Your task to perform on an android device: Open the phone app and click the voicemail tab. Image 0: 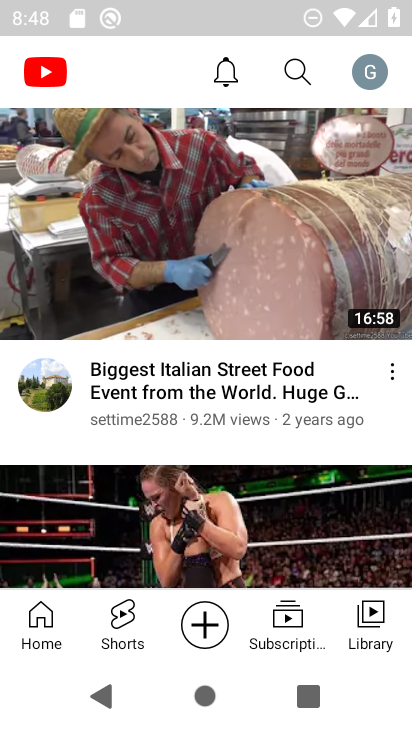
Step 0: press home button
Your task to perform on an android device: Open the phone app and click the voicemail tab. Image 1: 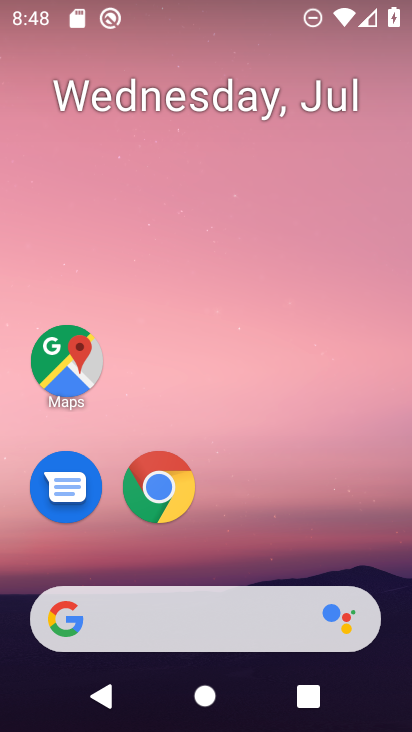
Step 1: drag from (341, 536) to (360, 94)
Your task to perform on an android device: Open the phone app and click the voicemail tab. Image 2: 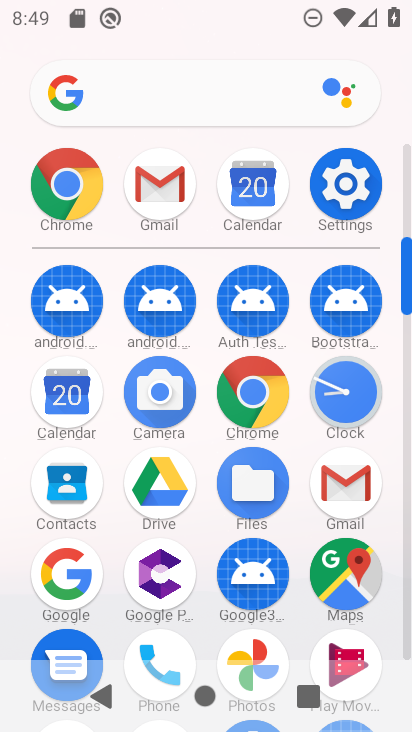
Step 2: drag from (401, 525) to (395, 259)
Your task to perform on an android device: Open the phone app and click the voicemail tab. Image 3: 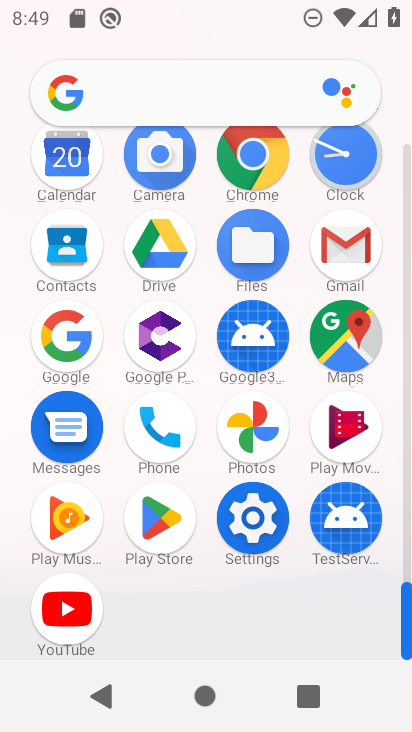
Step 3: click (164, 427)
Your task to perform on an android device: Open the phone app and click the voicemail tab. Image 4: 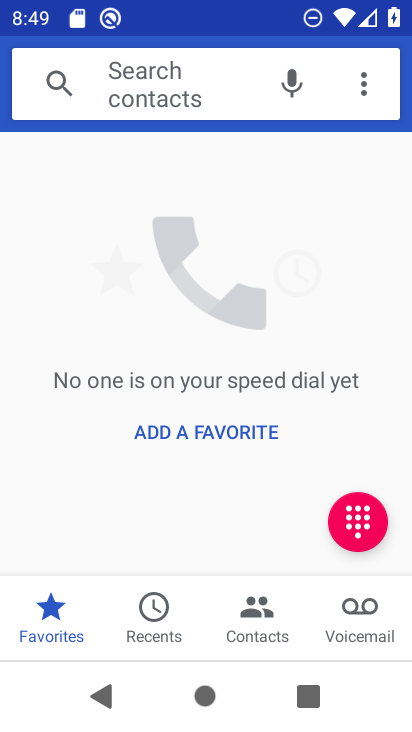
Step 4: click (355, 623)
Your task to perform on an android device: Open the phone app and click the voicemail tab. Image 5: 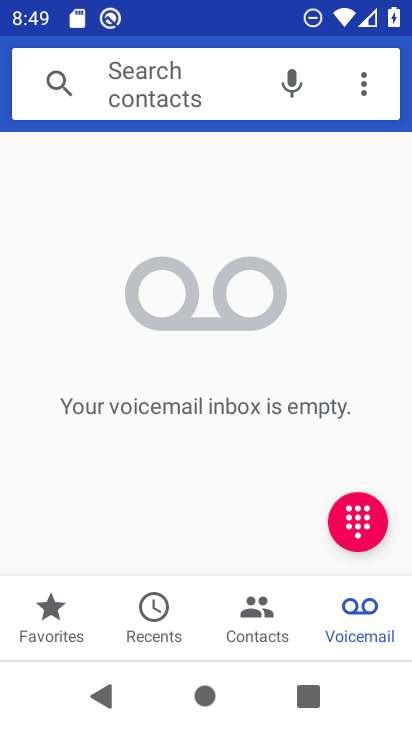
Step 5: task complete